Your task to perform on an android device: allow cookies in the chrome app Image 0: 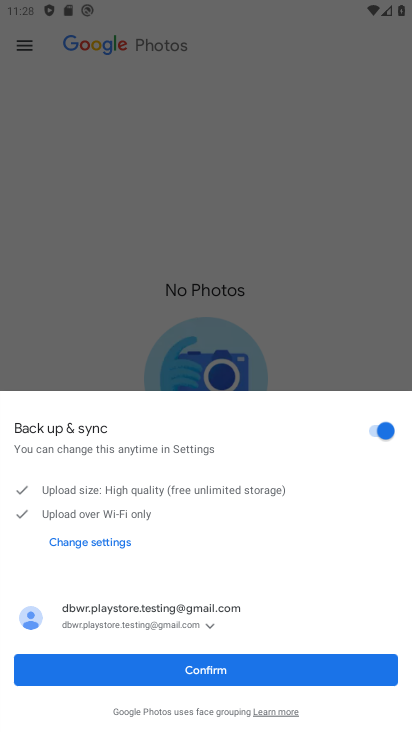
Step 0: press home button
Your task to perform on an android device: allow cookies in the chrome app Image 1: 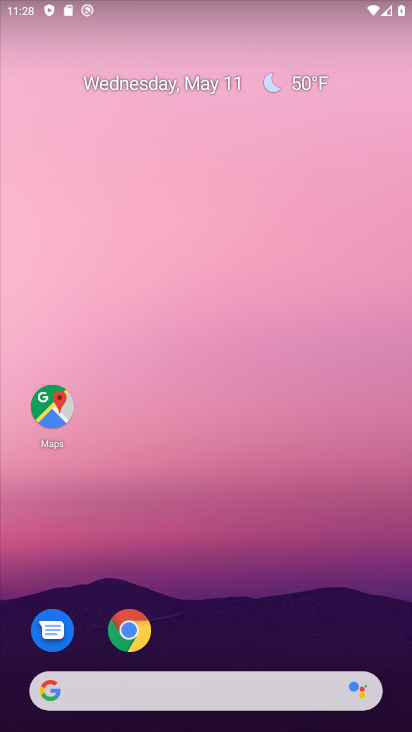
Step 1: click (126, 628)
Your task to perform on an android device: allow cookies in the chrome app Image 2: 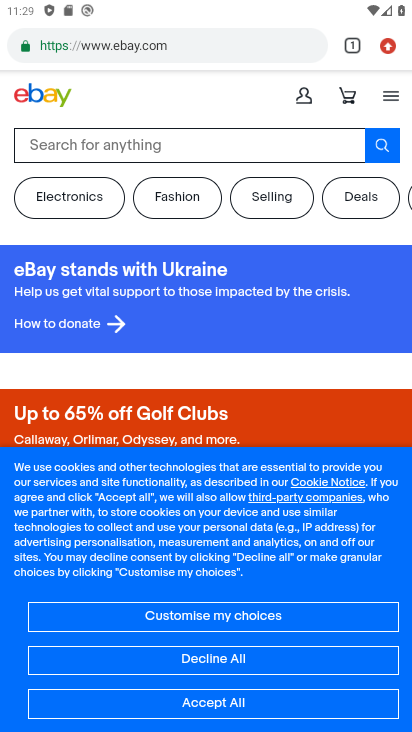
Step 2: click (390, 51)
Your task to perform on an android device: allow cookies in the chrome app Image 3: 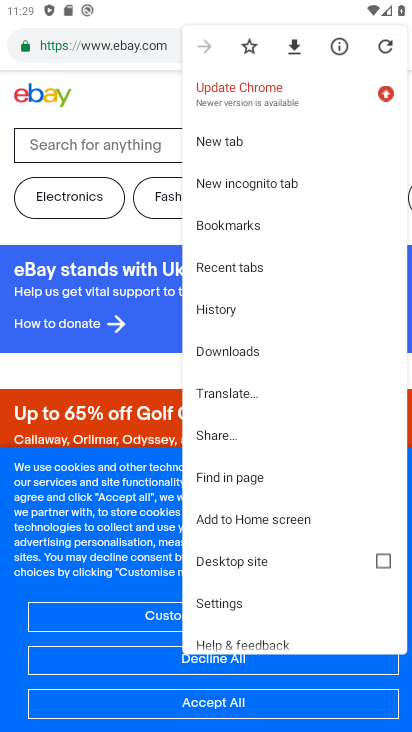
Step 3: click (214, 602)
Your task to perform on an android device: allow cookies in the chrome app Image 4: 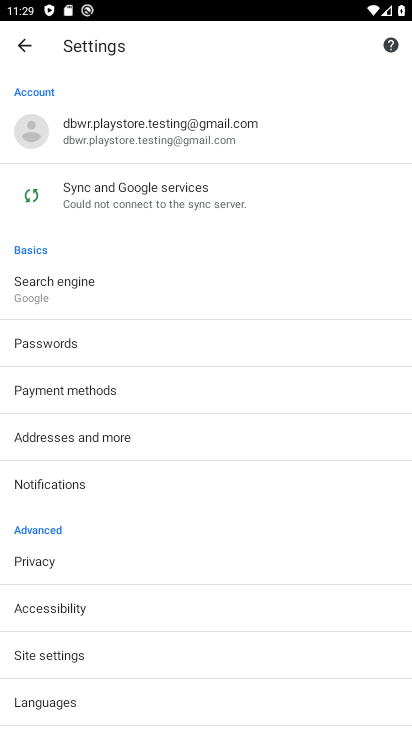
Step 4: drag from (94, 660) to (90, 414)
Your task to perform on an android device: allow cookies in the chrome app Image 5: 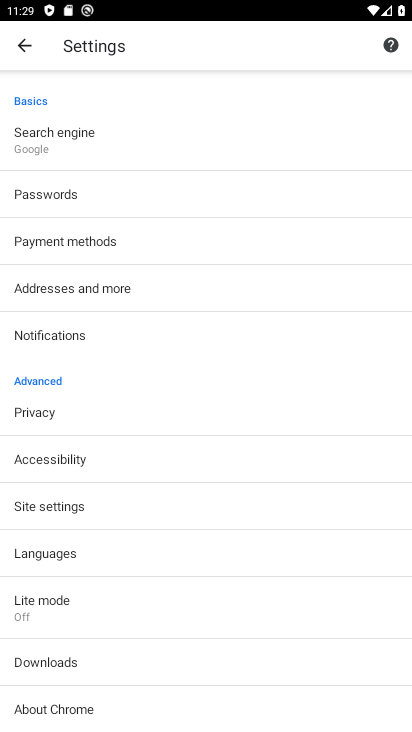
Step 5: click (71, 502)
Your task to perform on an android device: allow cookies in the chrome app Image 6: 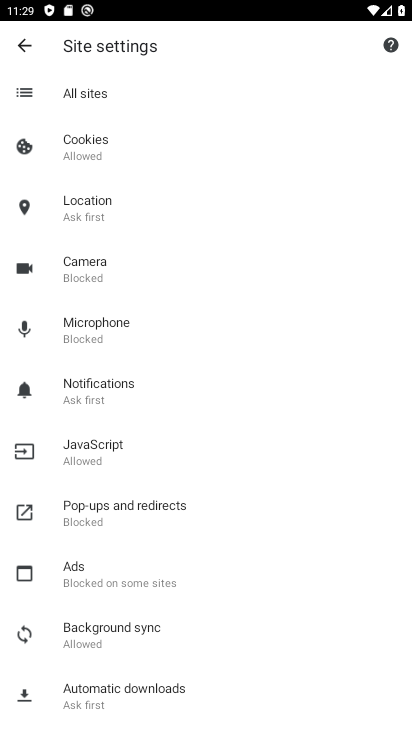
Step 6: click (89, 142)
Your task to perform on an android device: allow cookies in the chrome app Image 7: 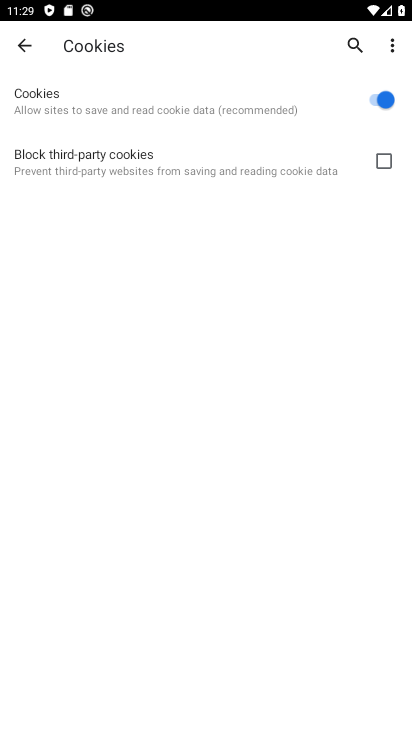
Step 7: task complete